Your task to perform on an android device: turn on javascript in the chrome app Image 0: 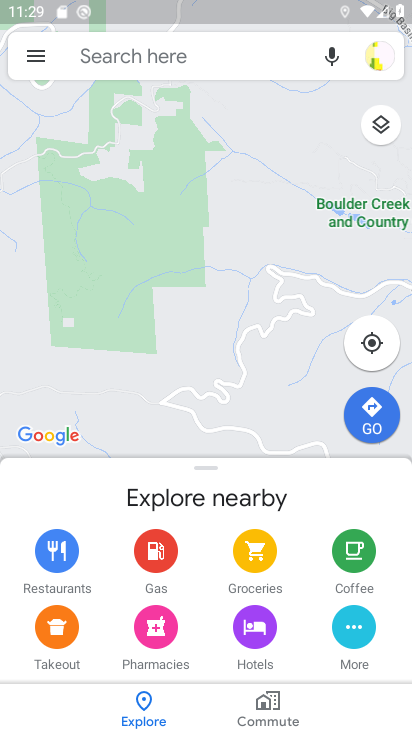
Step 0: drag from (210, 627) to (221, 88)
Your task to perform on an android device: turn on javascript in the chrome app Image 1: 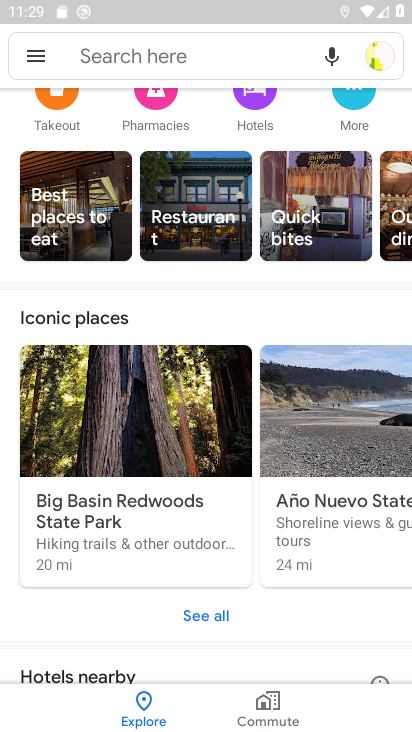
Step 1: drag from (268, 351) to (331, 574)
Your task to perform on an android device: turn on javascript in the chrome app Image 2: 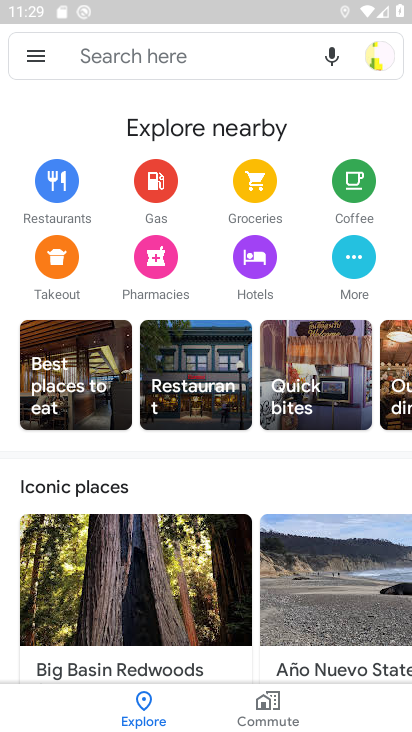
Step 2: press home button
Your task to perform on an android device: turn on javascript in the chrome app Image 3: 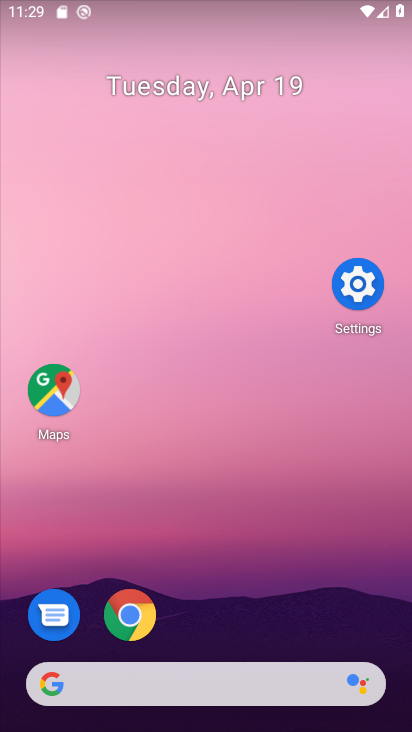
Step 3: click (129, 606)
Your task to perform on an android device: turn on javascript in the chrome app Image 4: 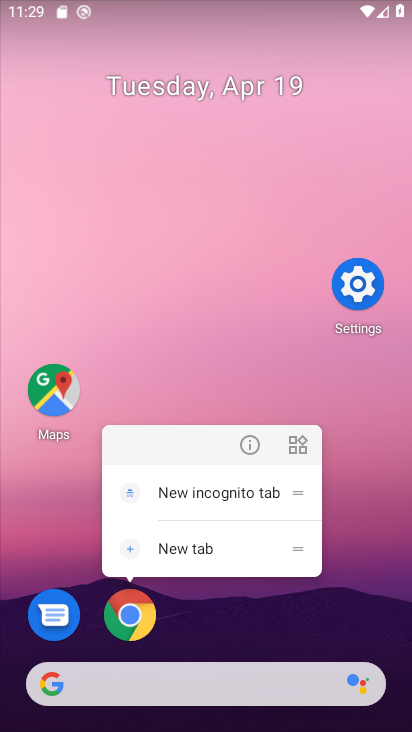
Step 4: click (257, 445)
Your task to perform on an android device: turn on javascript in the chrome app Image 5: 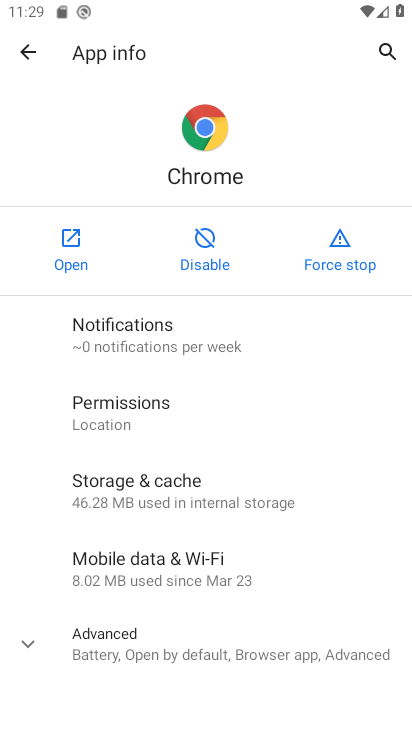
Step 5: click (68, 236)
Your task to perform on an android device: turn on javascript in the chrome app Image 6: 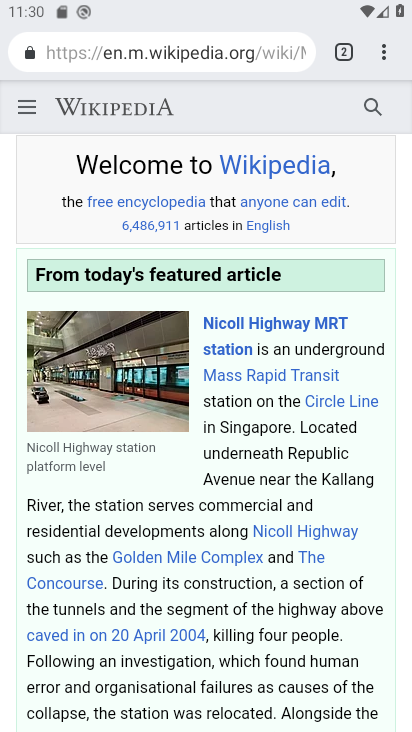
Step 6: drag from (381, 50) to (243, 657)
Your task to perform on an android device: turn on javascript in the chrome app Image 7: 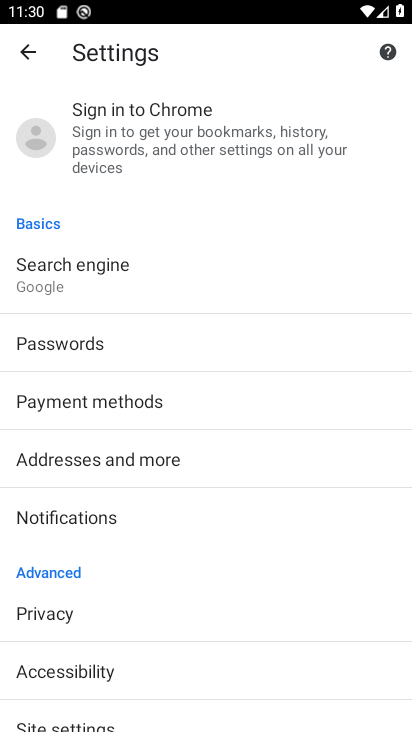
Step 7: drag from (200, 369) to (284, 96)
Your task to perform on an android device: turn on javascript in the chrome app Image 8: 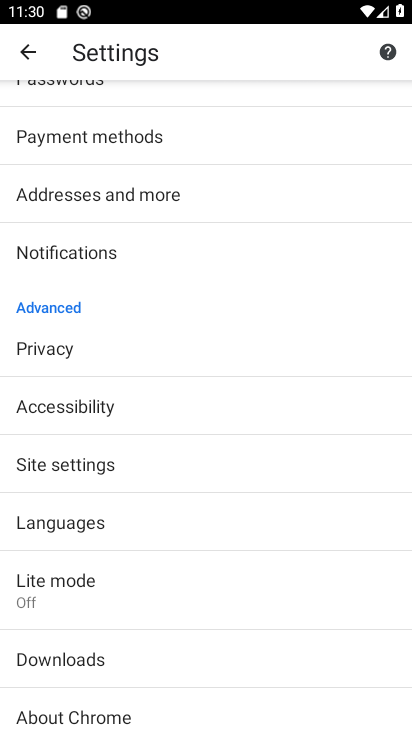
Step 8: click (107, 473)
Your task to perform on an android device: turn on javascript in the chrome app Image 9: 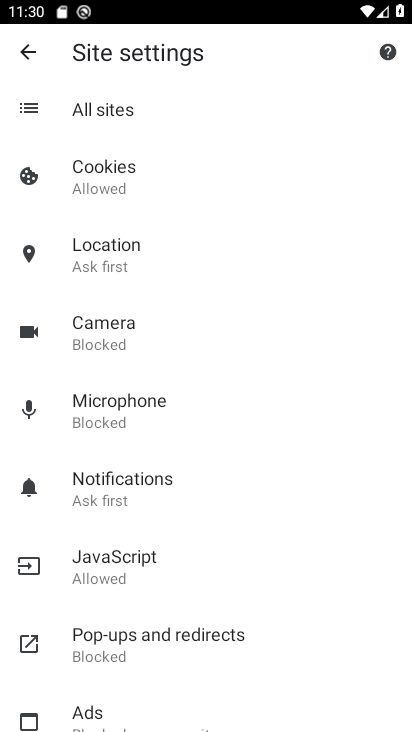
Step 9: drag from (185, 514) to (227, 114)
Your task to perform on an android device: turn on javascript in the chrome app Image 10: 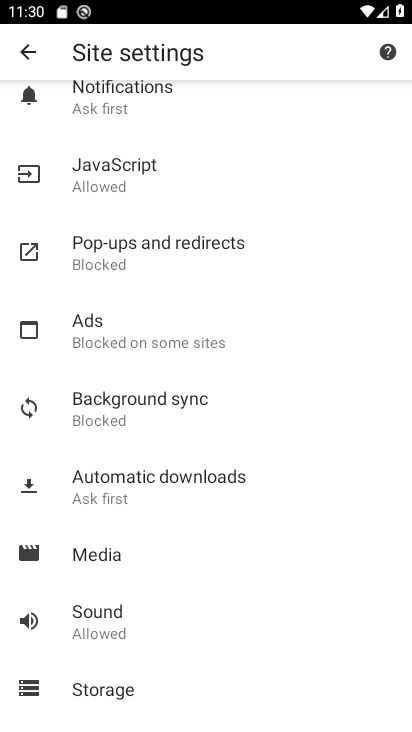
Step 10: click (137, 168)
Your task to perform on an android device: turn on javascript in the chrome app Image 11: 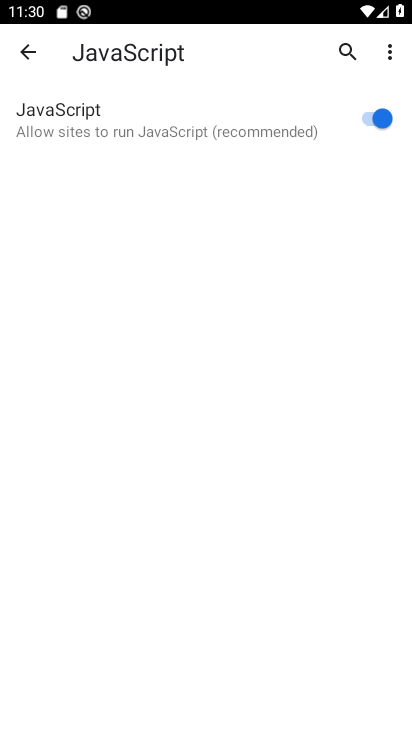
Step 11: task complete